Your task to perform on an android device: Go to network settings Image 0: 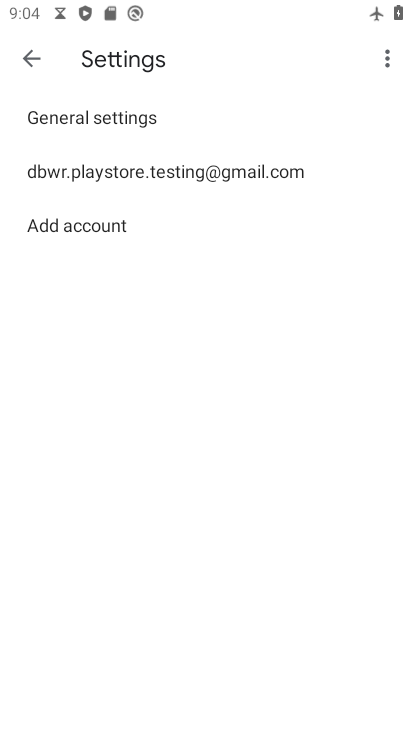
Step 0: press home button
Your task to perform on an android device: Go to network settings Image 1: 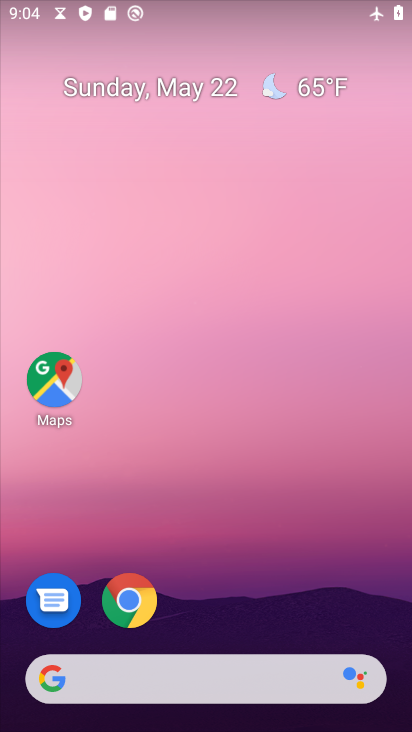
Step 1: drag from (247, 589) to (230, 115)
Your task to perform on an android device: Go to network settings Image 2: 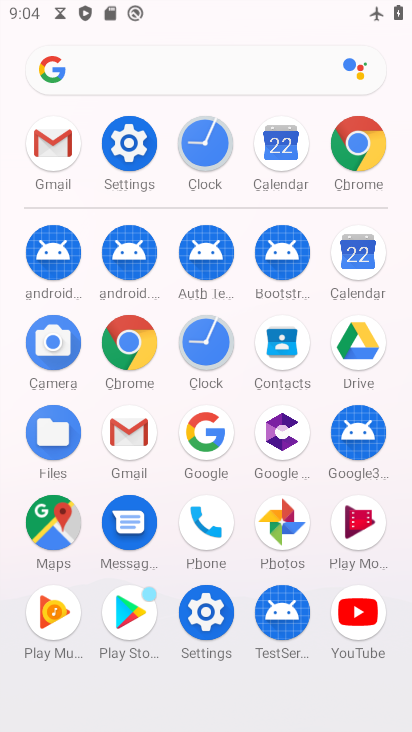
Step 2: click (122, 158)
Your task to perform on an android device: Go to network settings Image 3: 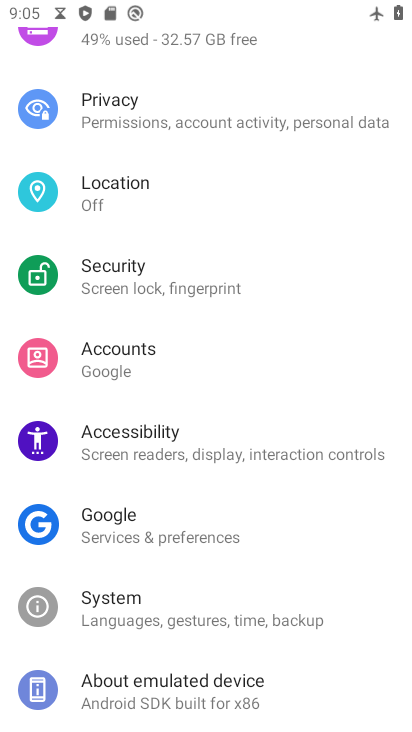
Step 3: drag from (187, 288) to (190, 557)
Your task to perform on an android device: Go to network settings Image 4: 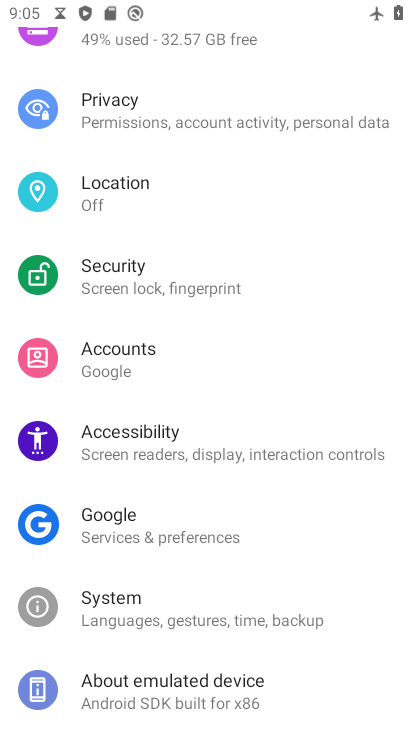
Step 4: drag from (204, 200) to (186, 529)
Your task to perform on an android device: Go to network settings Image 5: 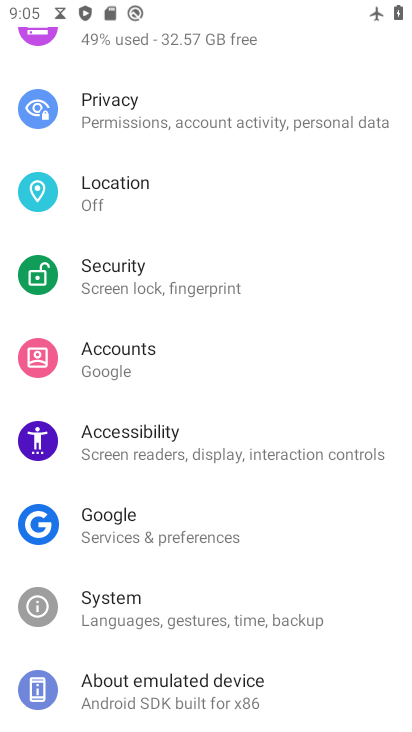
Step 5: drag from (270, 311) to (226, 386)
Your task to perform on an android device: Go to network settings Image 6: 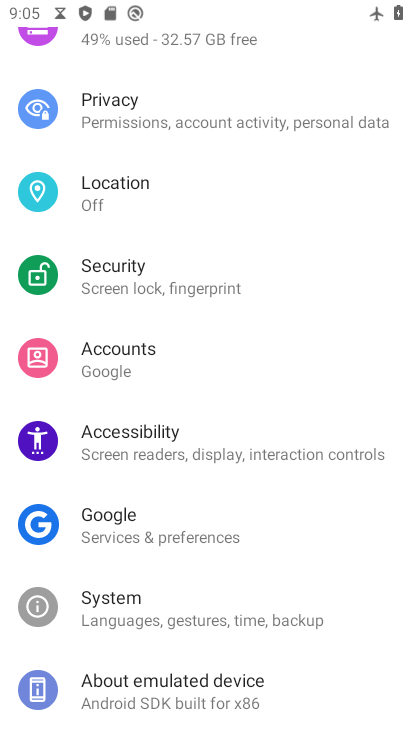
Step 6: drag from (225, 146) to (246, 478)
Your task to perform on an android device: Go to network settings Image 7: 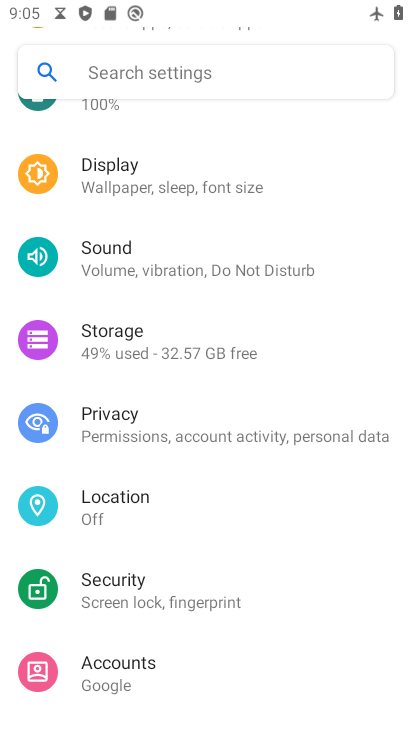
Step 7: drag from (225, 249) to (183, 591)
Your task to perform on an android device: Go to network settings Image 8: 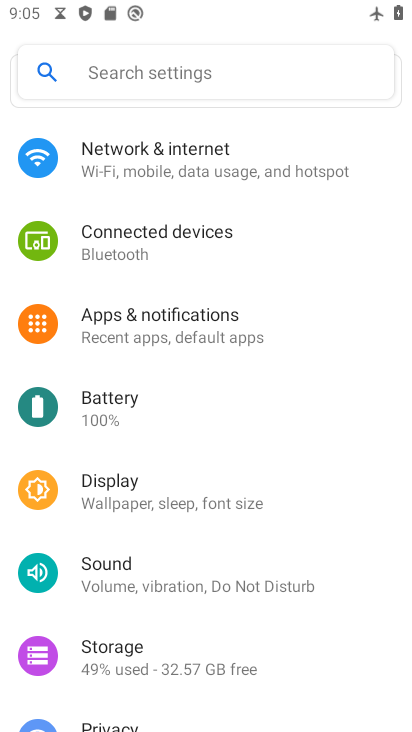
Step 8: click (191, 166)
Your task to perform on an android device: Go to network settings Image 9: 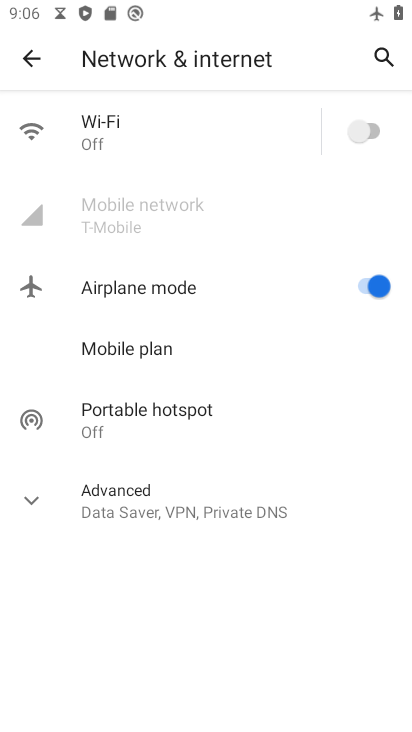
Step 9: task complete